Your task to perform on an android device: Open Chrome and go to settings Image 0: 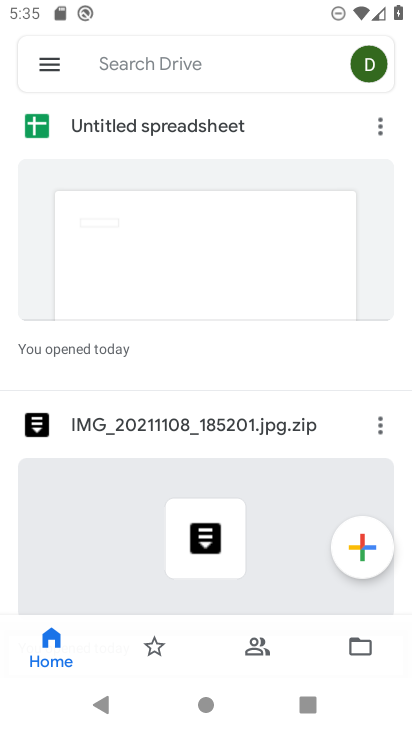
Step 0: press home button
Your task to perform on an android device: Open Chrome and go to settings Image 1: 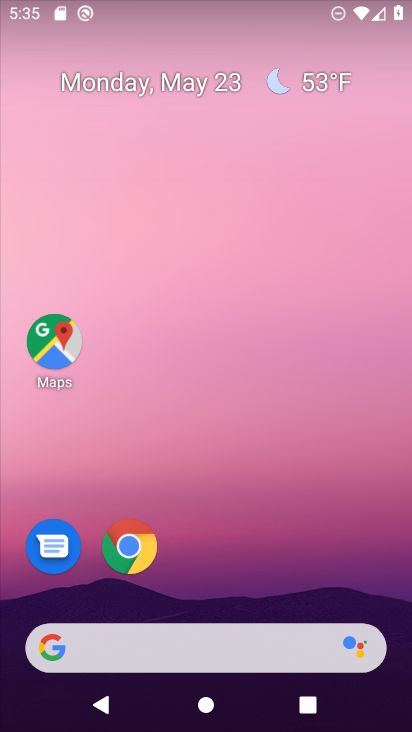
Step 1: click (134, 557)
Your task to perform on an android device: Open Chrome and go to settings Image 2: 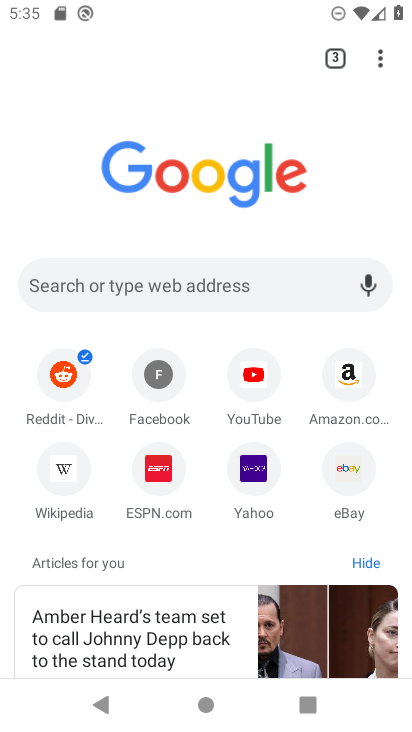
Step 2: click (385, 49)
Your task to perform on an android device: Open Chrome and go to settings Image 3: 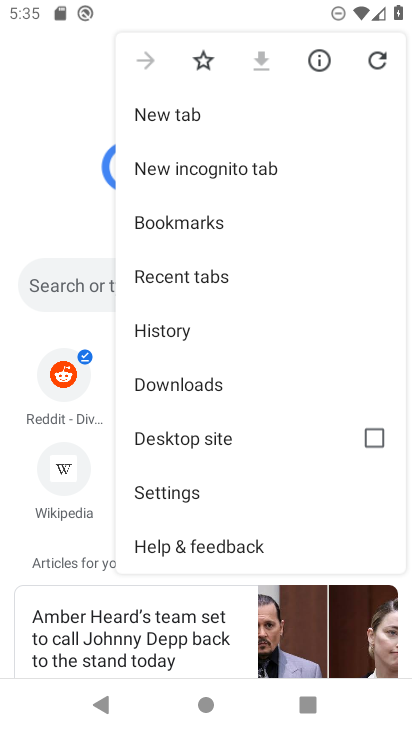
Step 3: click (176, 490)
Your task to perform on an android device: Open Chrome and go to settings Image 4: 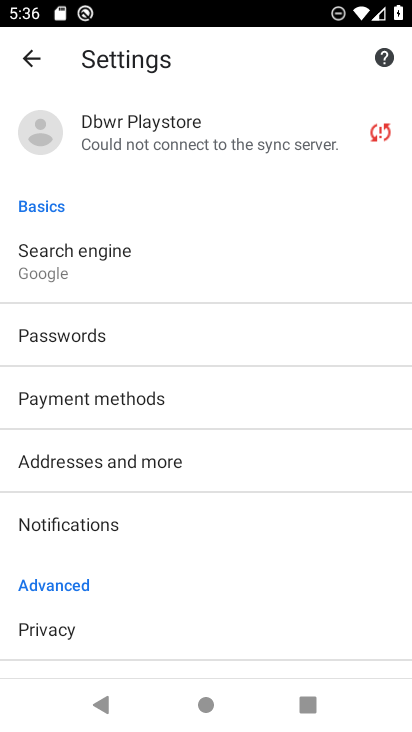
Step 4: task complete